Your task to perform on an android device: turn on data saver in the chrome app Image 0: 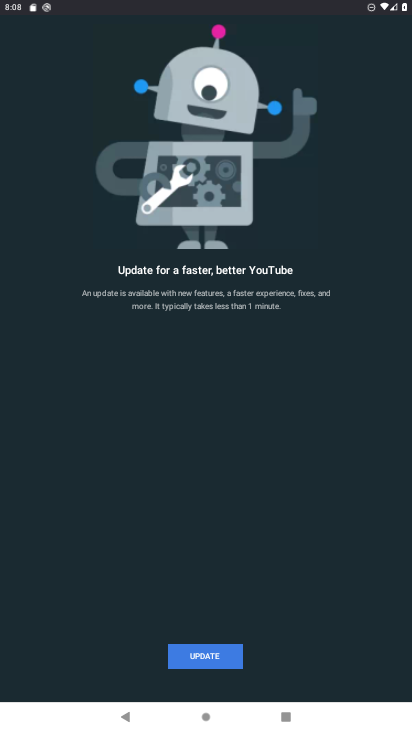
Step 0: press home button
Your task to perform on an android device: turn on data saver in the chrome app Image 1: 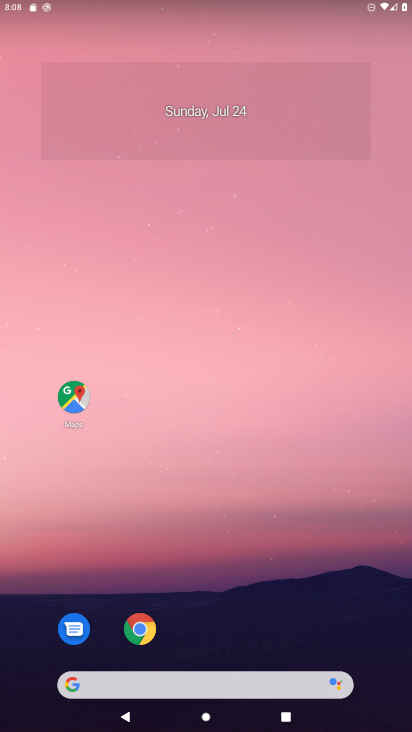
Step 1: drag from (362, 655) to (30, 258)
Your task to perform on an android device: turn on data saver in the chrome app Image 2: 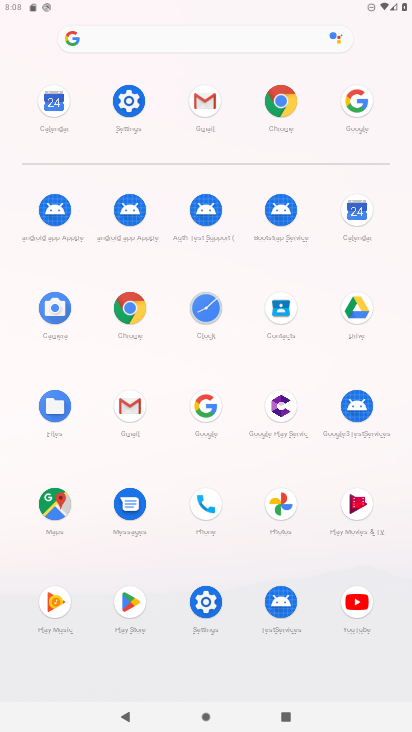
Step 2: click (125, 310)
Your task to perform on an android device: turn on data saver in the chrome app Image 3: 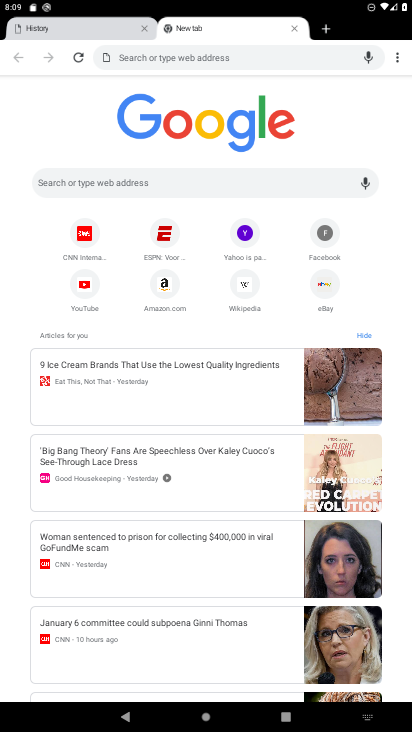
Step 3: click (391, 54)
Your task to perform on an android device: turn on data saver in the chrome app Image 4: 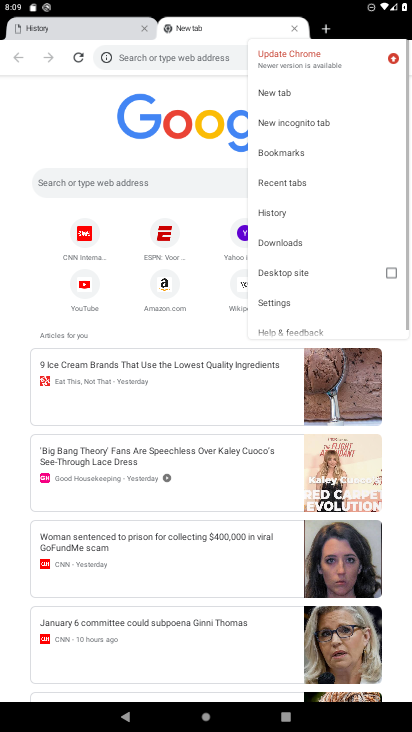
Step 4: click (276, 303)
Your task to perform on an android device: turn on data saver in the chrome app Image 5: 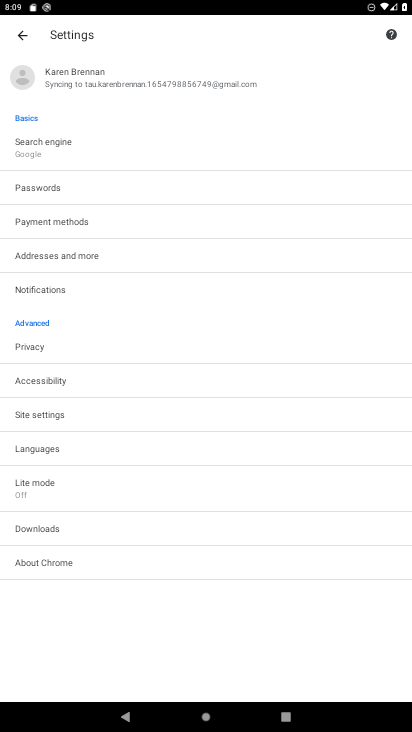
Step 5: click (60, 483)
Your task to perform on an android device: turn on data saver in the chrome app Image 6: 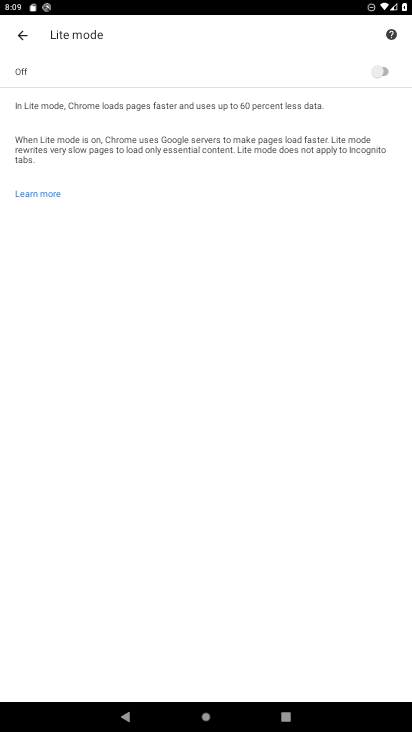
Step 6: click (352, 70)
Your task to perform on an android device: turn on data saver in the chrome app Image 7: 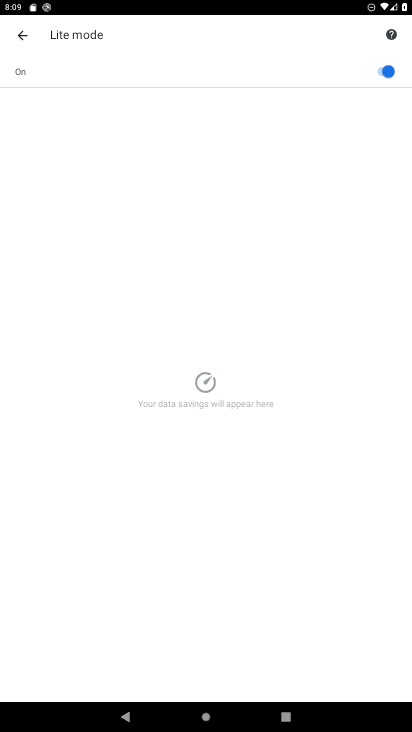
Step 7: task complete